Your task to perform on an android device: toggle sleep mode Image 0: 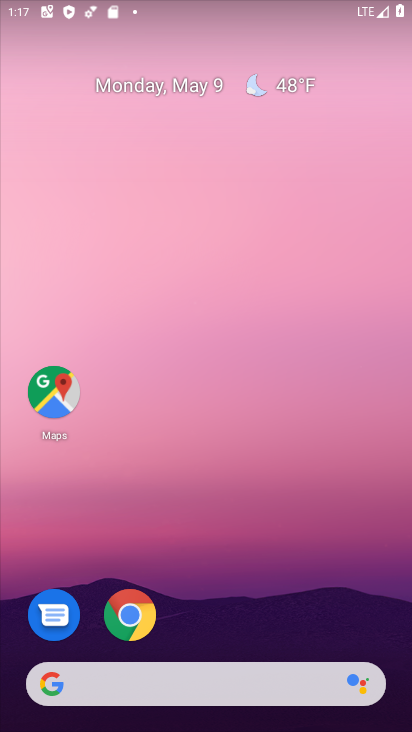
Step 0: drag from (375, 626) to (369, 9)
Your task to perform on an android device: toggle sleep mode Image 1: 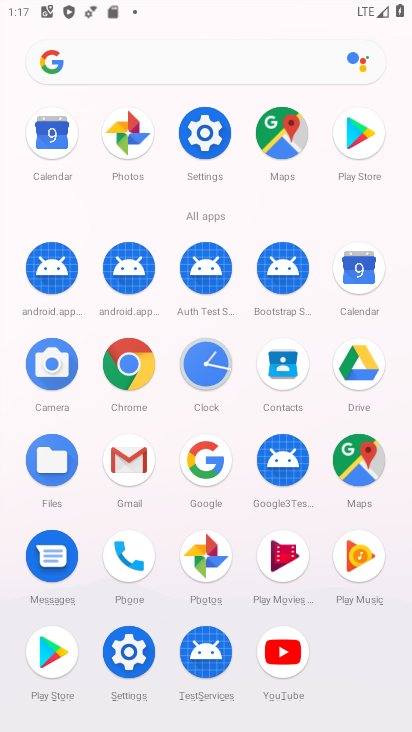
Step 1: click (127, 653)
Your task to perform on an android device: toggle sleep mode Image 2: 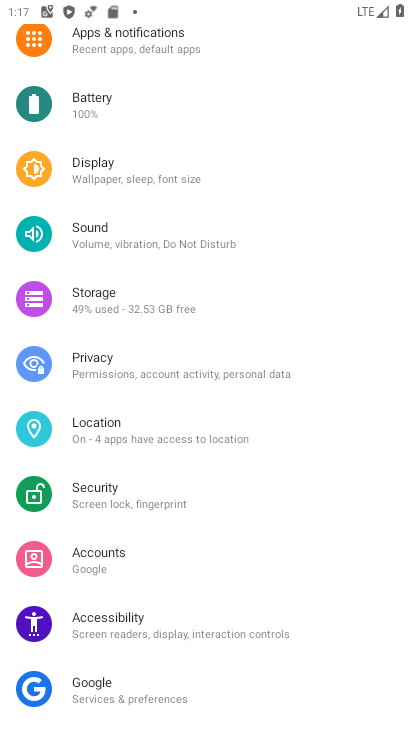
Step 2: click (82, 160)
Your task to perform on an android device: toggle sleep mode Image 3: 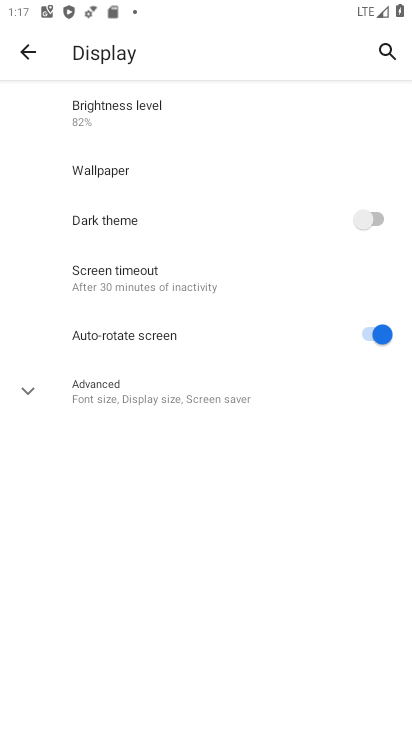
Step 3: click (25, 389)
Your task to perform on an android device: toggle sleep mode Image 4: 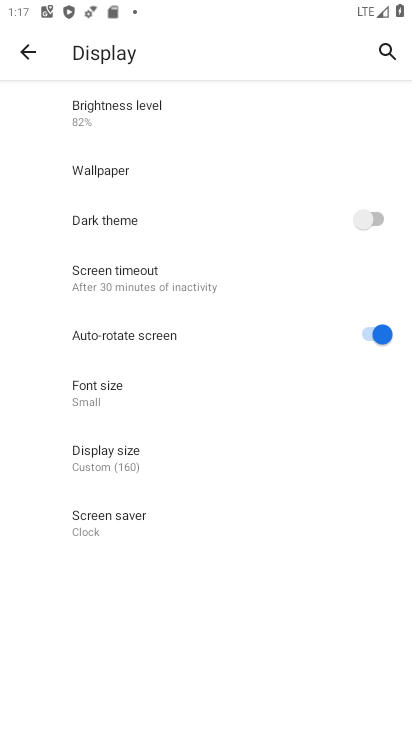
Step 4: task complete